Your task to perform on an android device: turn on data saver in the chrome app Image 0: 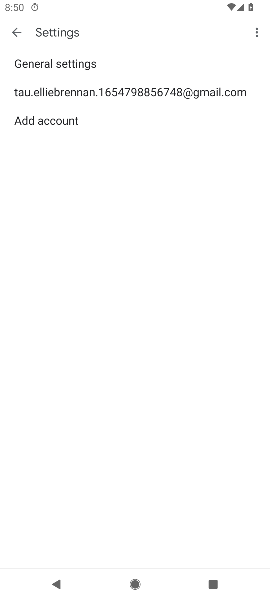
Step 0: press home button
Your task to perform on an android device: turn on data saver in the chrome app Image 1: 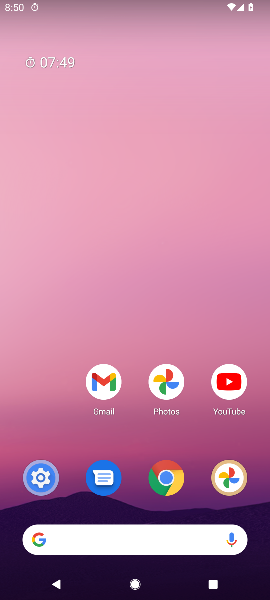
Step 1: click (162, 469)
Your task to perform on an android device: turn on data saver in the chrome app Image 2: 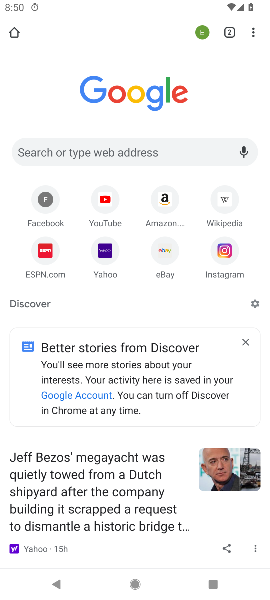
Step 2: drag from (256, 32) to (150, 326)
Your task to perform on an android device: turn on data saver in the chrome app Image 3: 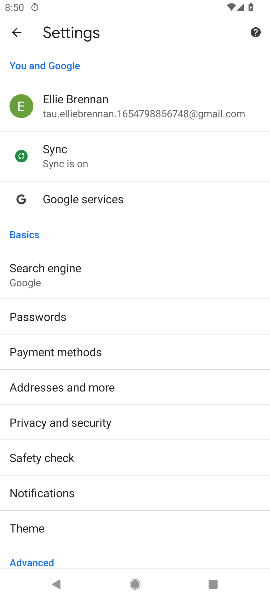
Step 3: drag from (49, 514) to (123, 16)
Your task to perform on an android device: turn on data saver in the chrome app Image 4: 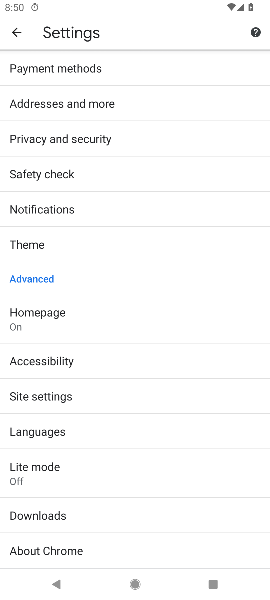
Step 4: click (35, 465)
Your task to perform on an android device: turn on data saver in the chrome app Image 5: 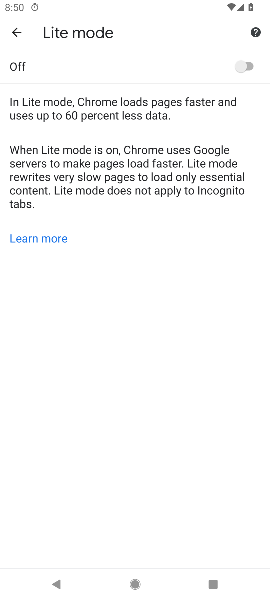
Step 5: click (204, 48)
Your task to perform on an android device: turn on data saver in the chrome app Image 6: 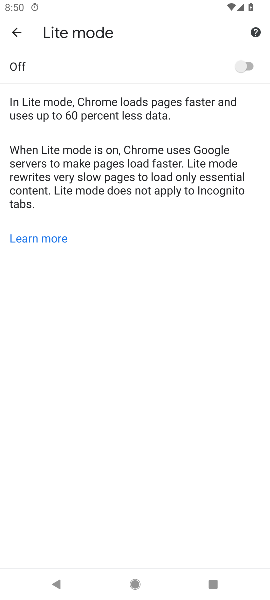
Step 6: click (204, 67)
Your task to perform on an android device: turn on data saver in the chrome app Image 7: 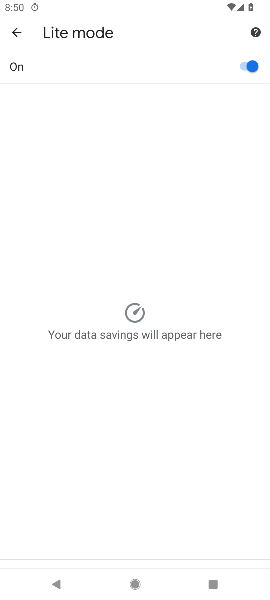
Step 7: task complete